Your task to perform on an android device: turn pop-ups on in chrome Image 0: 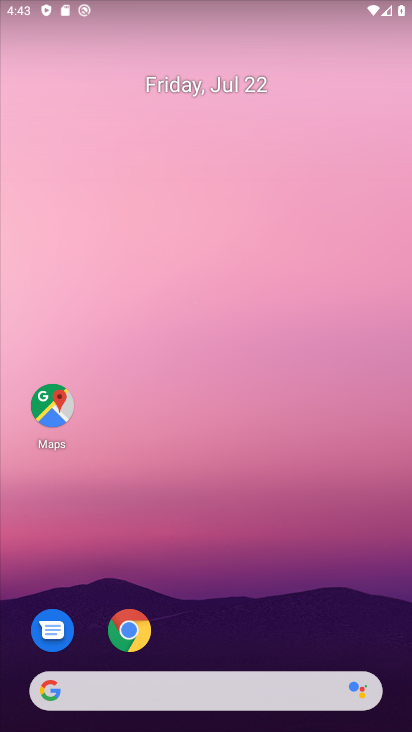
Step 0: click (134, 630)
Your task to perform on an android device: turn pop-ups on in chrome Image 1: 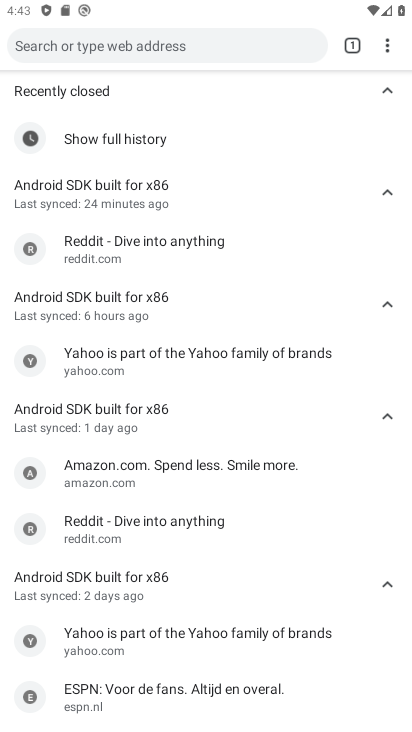
Step 1: click (391, 53)
Your task to perform on an android device: turn pop-ups on in chrome Image 2: 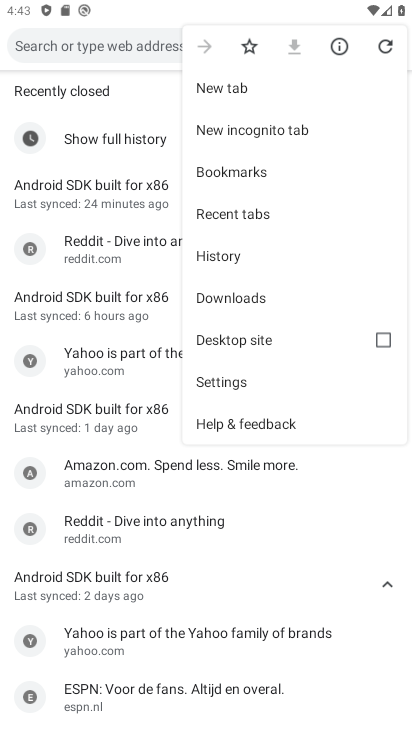
Step 2: click (215, 375)
Your task to perform on an android device: turn pop-ups on in chrome Image 3: 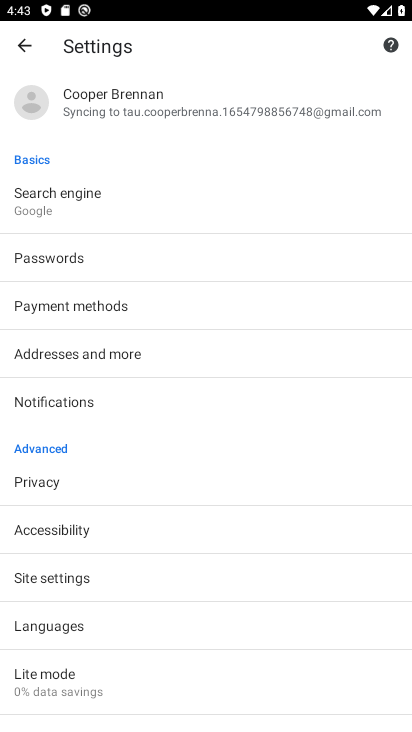
Step 3: drag from (137, 595) to (137, 397)
Your task to perform on an android device: turn pop-ups on in chrome Image 4: 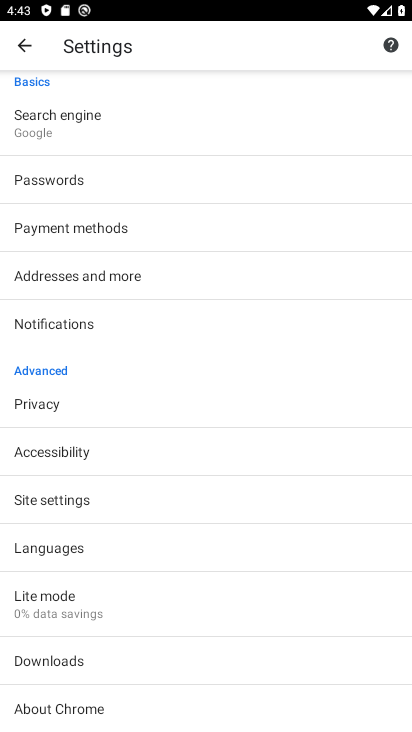
Step 4: drag from (104, 626) to (158, 375)
Your task to perform on an android device: turn pop-ups on in chrome Image 5: 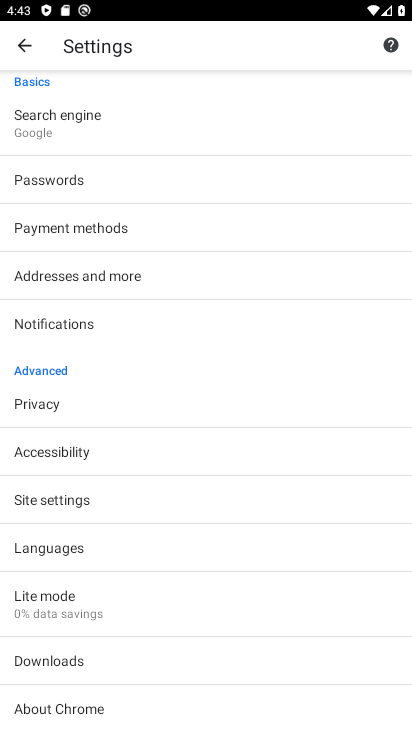
Step 5: drag from (152, 250) to (135, 428)
Your task to perform on an android device: turn pop-ups on in chrome Image 6: 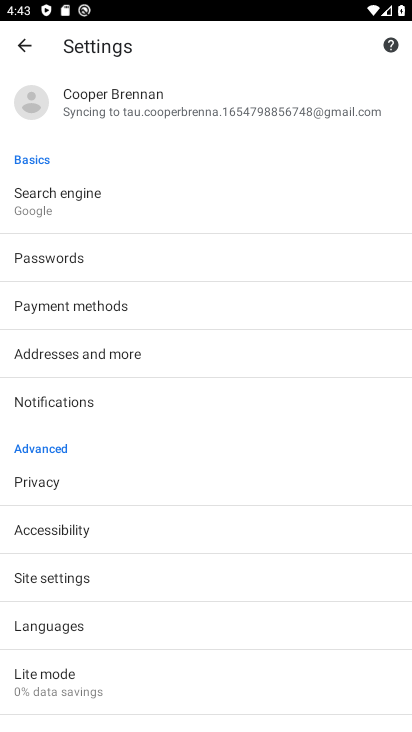
Step 6: click (56, 582)
Your task to perform on an android device: turn pop-ups on in chrome Image 7: 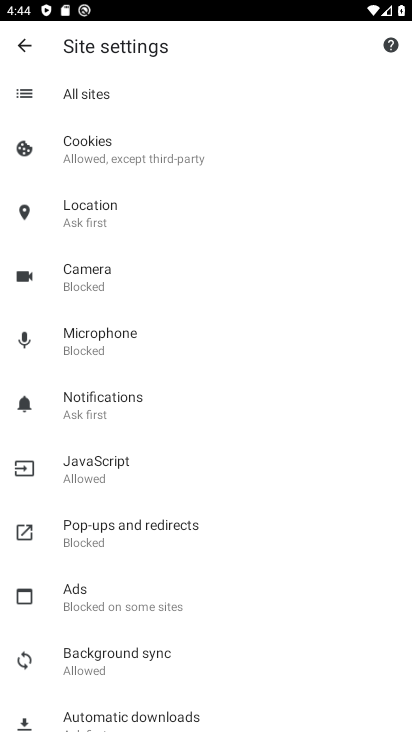
Step 7: click (95, 525)
Your task to perform on an android device: turn pop-ups on in chrome Image 8: 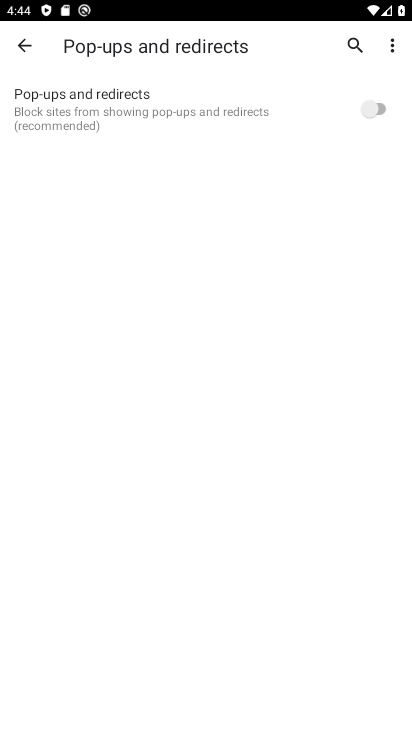
Step 8: click (381, 109)
Your task to perform on an android device: turn pop-ups on in chrome Image 9: 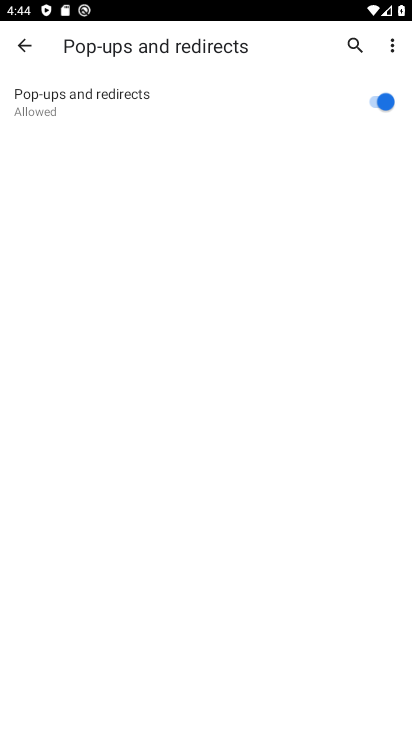
Step 9: task complete